Your task to perform on an android device: Go to privacy settings Image 0: 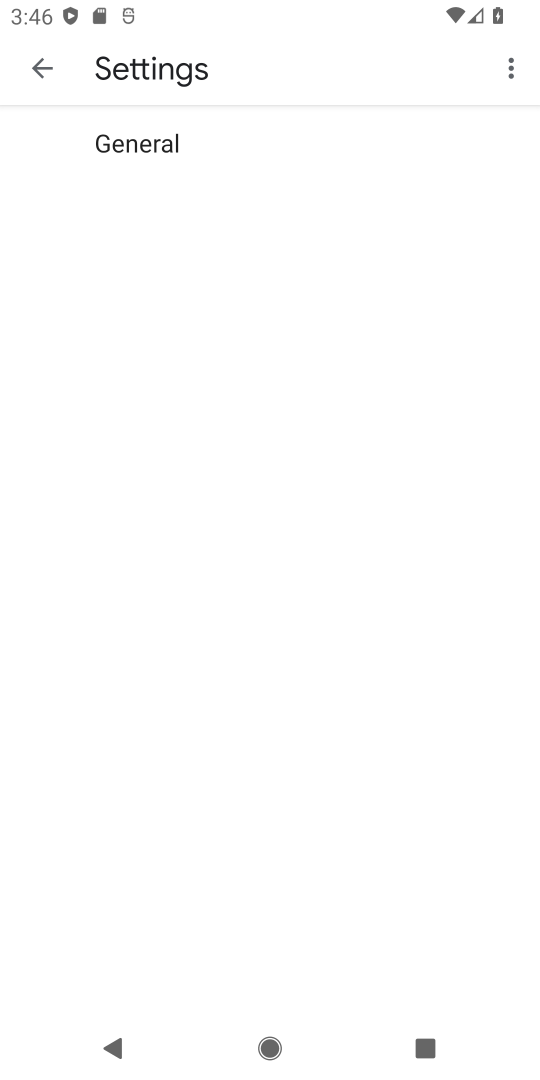
Step 0: press home button
Your task to perform on an android device: Go to privacy settings Image 1: 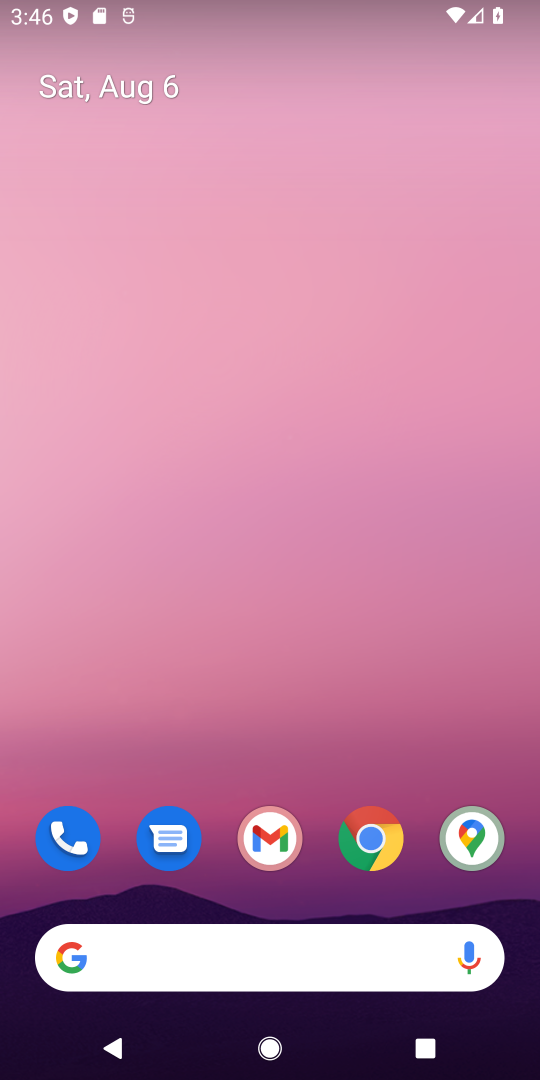
Step 1: drag from (239, 976) to (246, 131)
Your task to perform on an android device: Go to privacy settings Image 2: 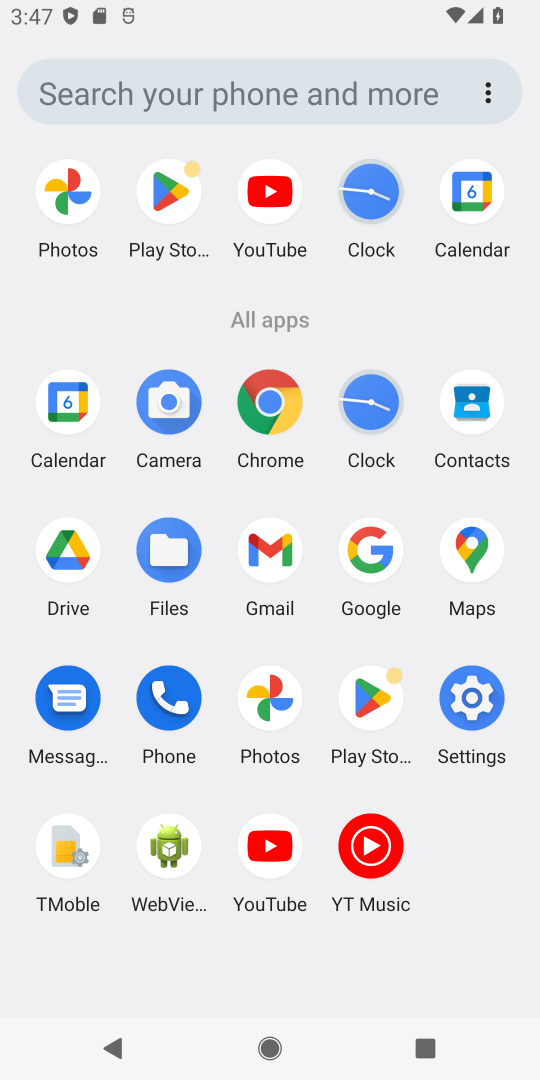
Step 2: click (452, 689)
Your task to perform on an android device: Go to privacy settings Image 3: 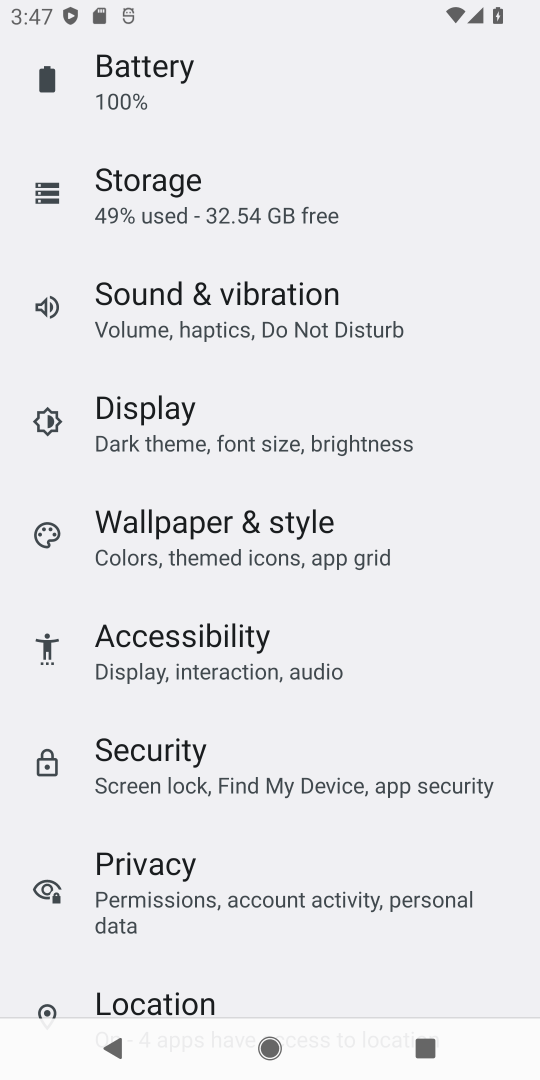
Step 3: click (164, 883)
Your task to perform on an android device: Go to privacy settings Image 4: 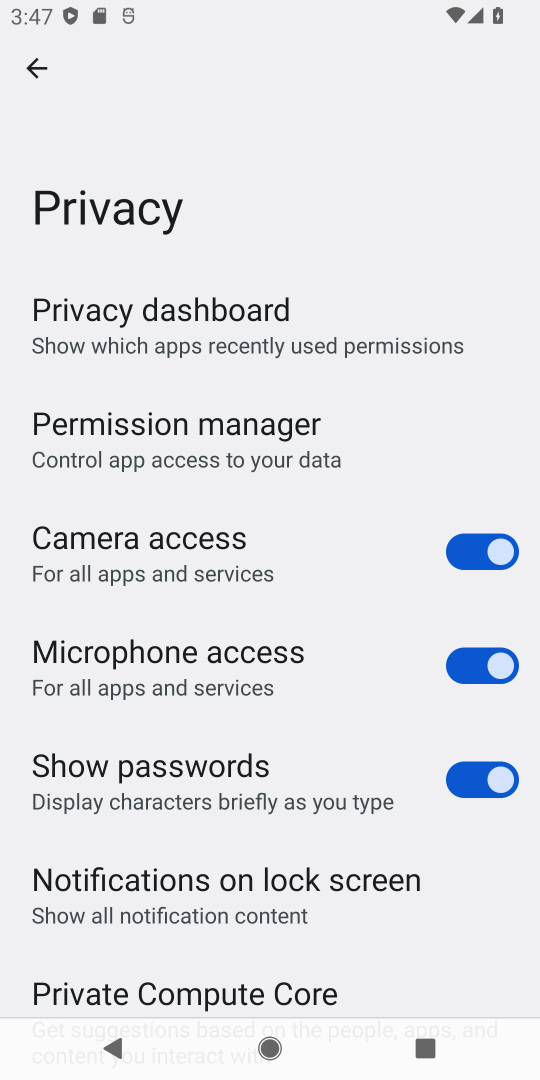
Step 4: task complete